Your task to perform on an android device: Play the latest video from the Wall Street Journal Image 0: 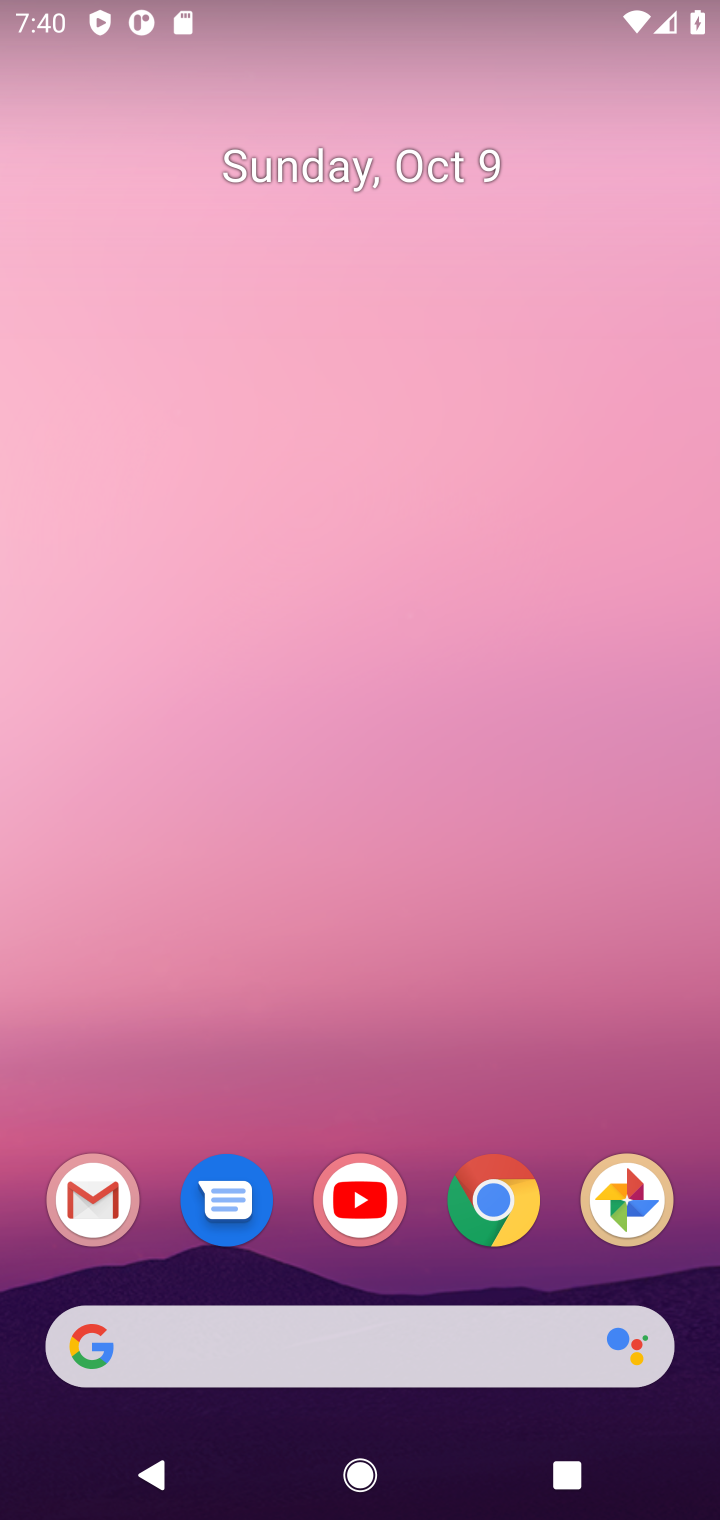
Step 0: click (516, 1219)
Your task to perform on an android device: Play the latest video from the Wall Street Journal Image 1: 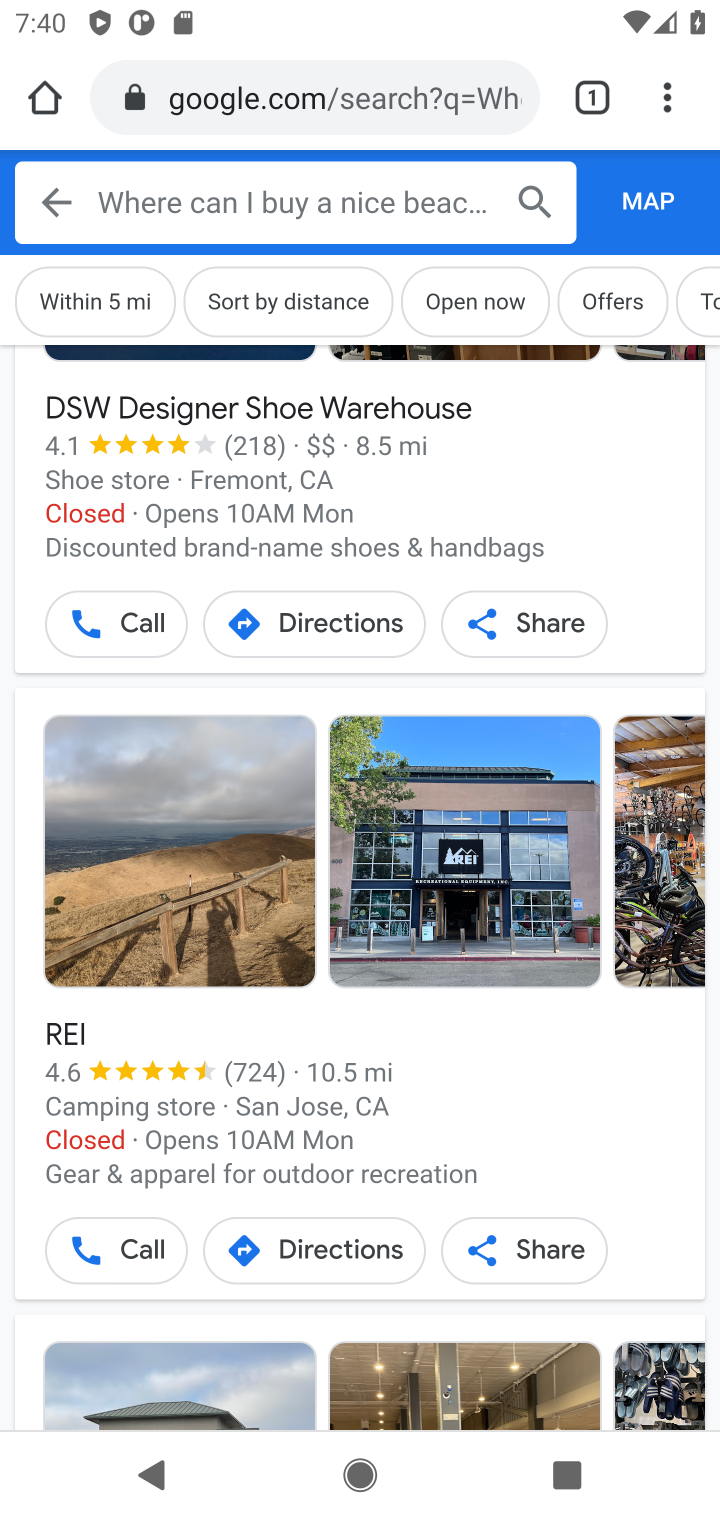
Step 1: click (242, 98)
Your task to perform on an android device: Play the latest video from the Wall Street Journal Image 2: 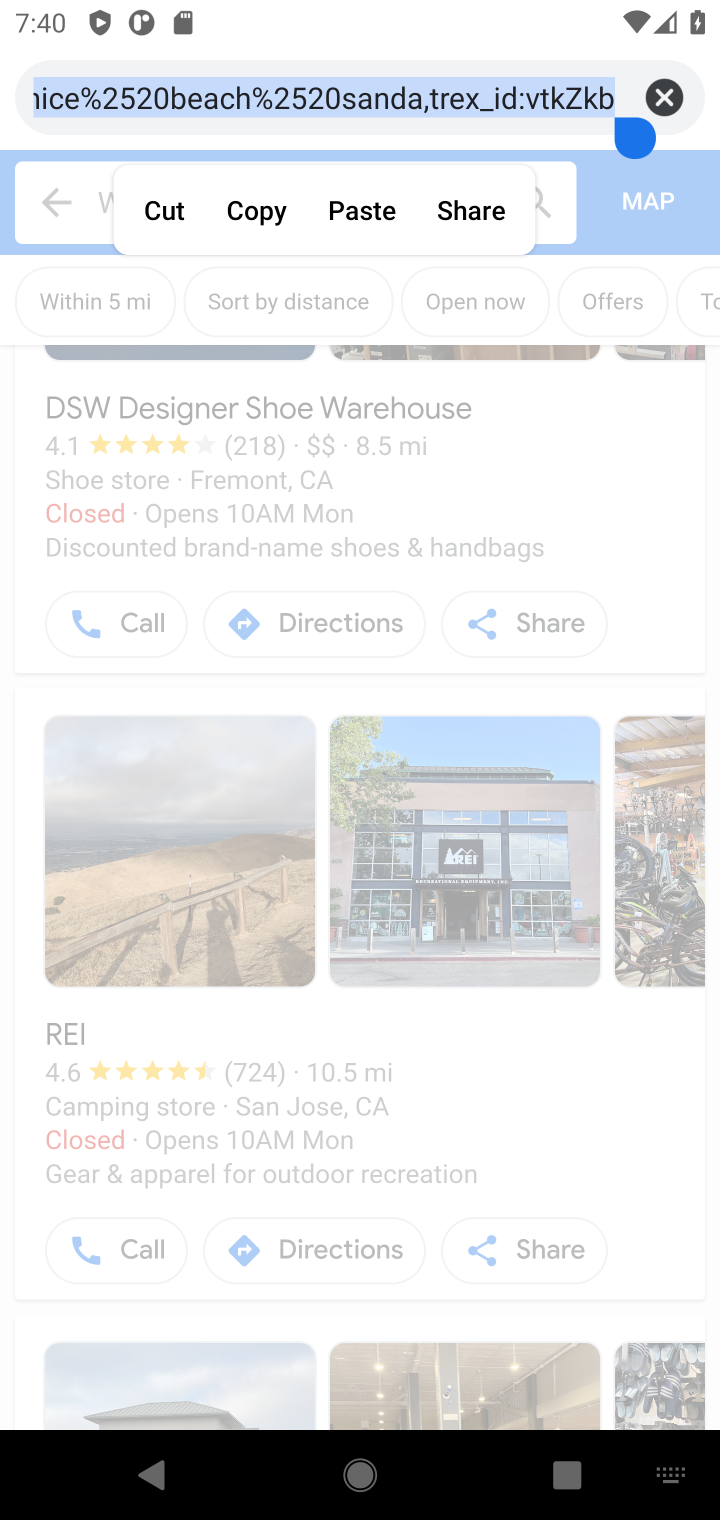
Step 2: type "atest video from the Wall Street Journal"
Your task to perform on an android device: Play the latest video from the Wall Street Journal Image 3: 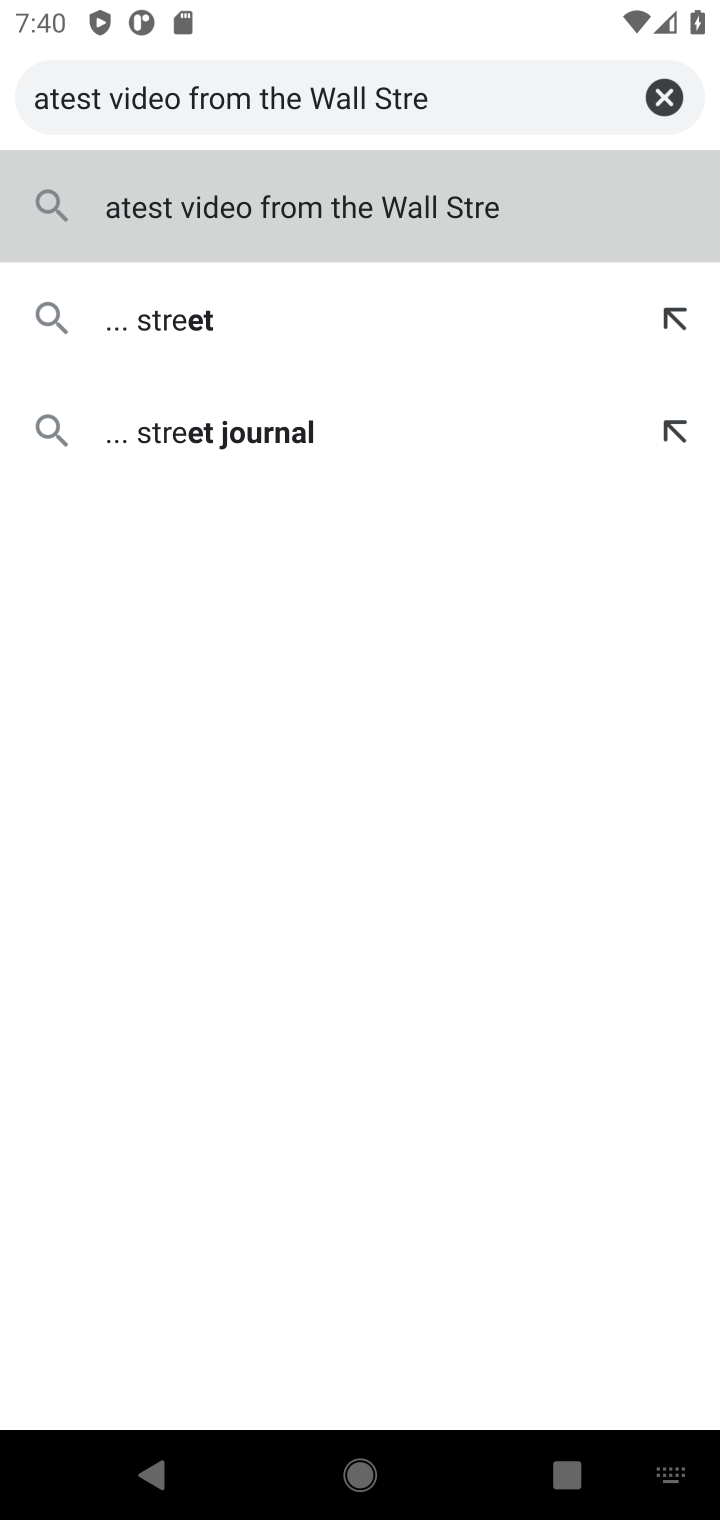
Step 3: type "atest video from the Wall Street Journal"
Your task to perform on an android device: Play the latest video from the Wall Street Journal Image 4: 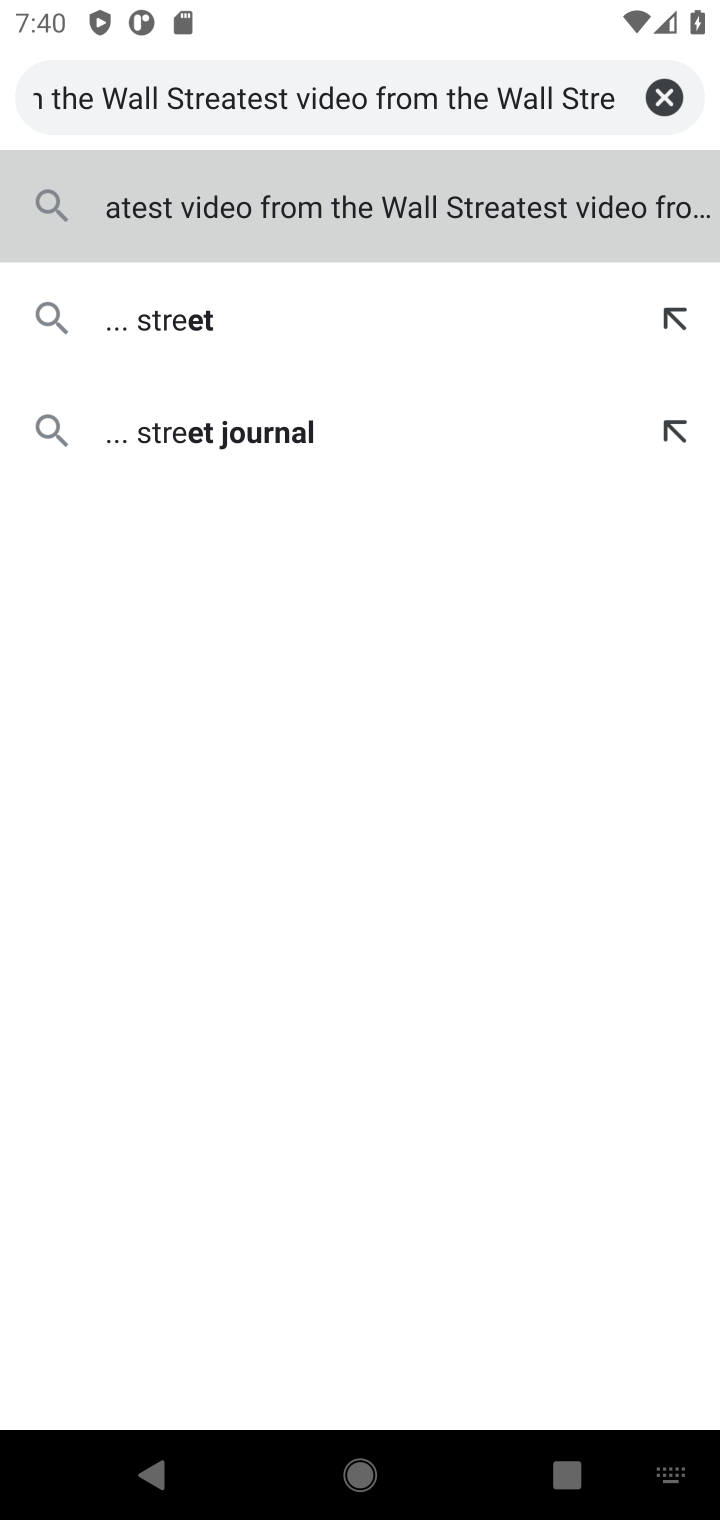
Step 4: type ""
Your task to perform on an android device: Play the latest video from the Wall Street Journal Image 5: 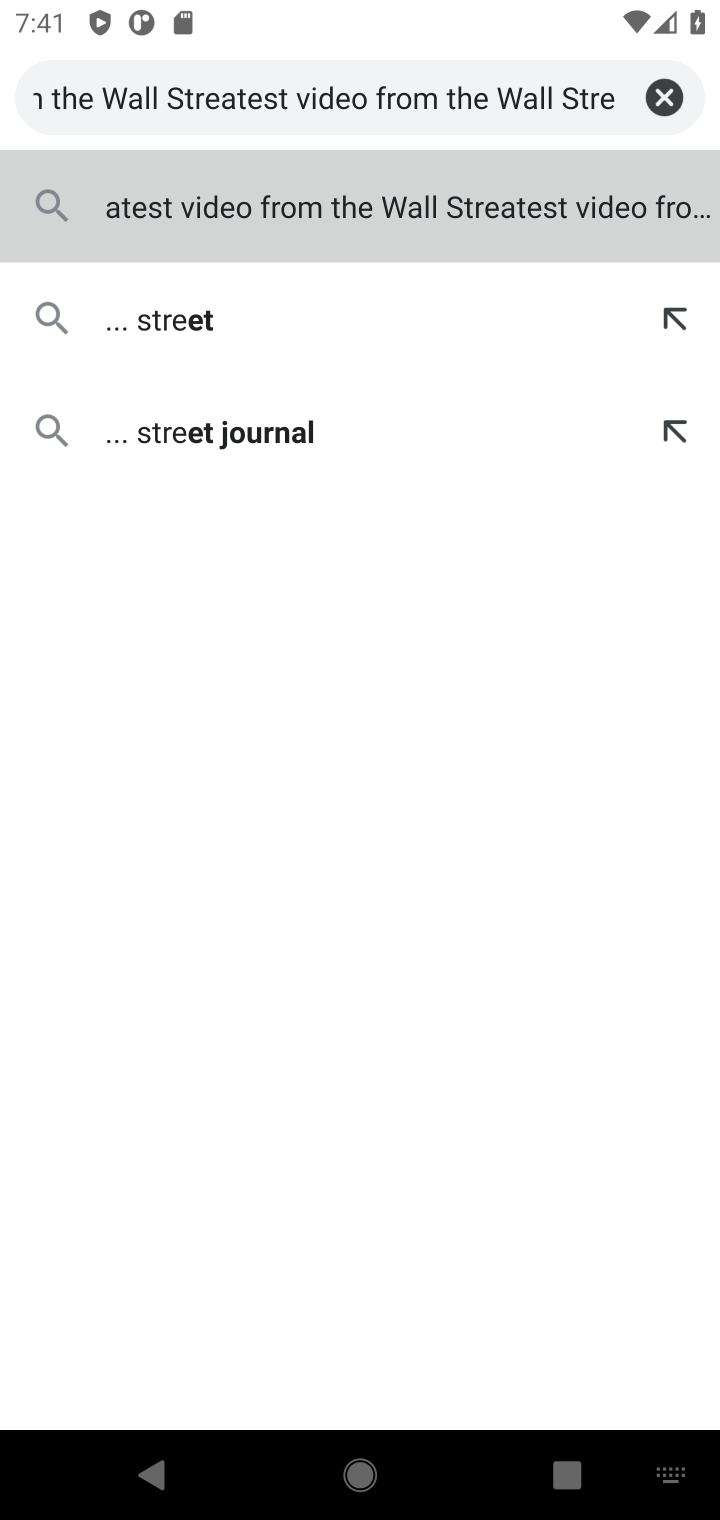
Step 5: click (662, 108)
Your task to perform on an android device: Play the latest video from the Wall Street Journal Image 6: 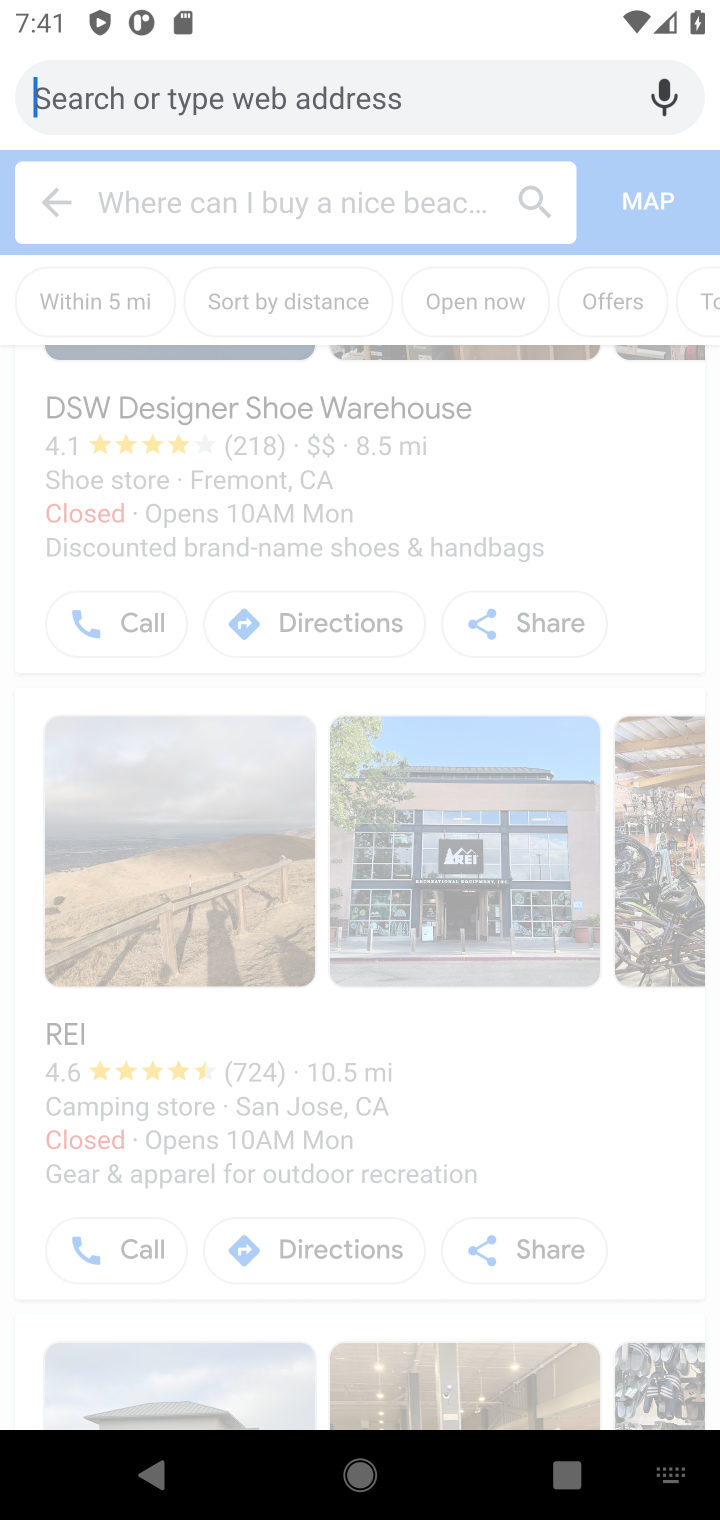
Step 6: type "latest video from the Wall Street Journal"
Your task to perform on an android device: Play the latest video from the Wall Street Journal Image 7: 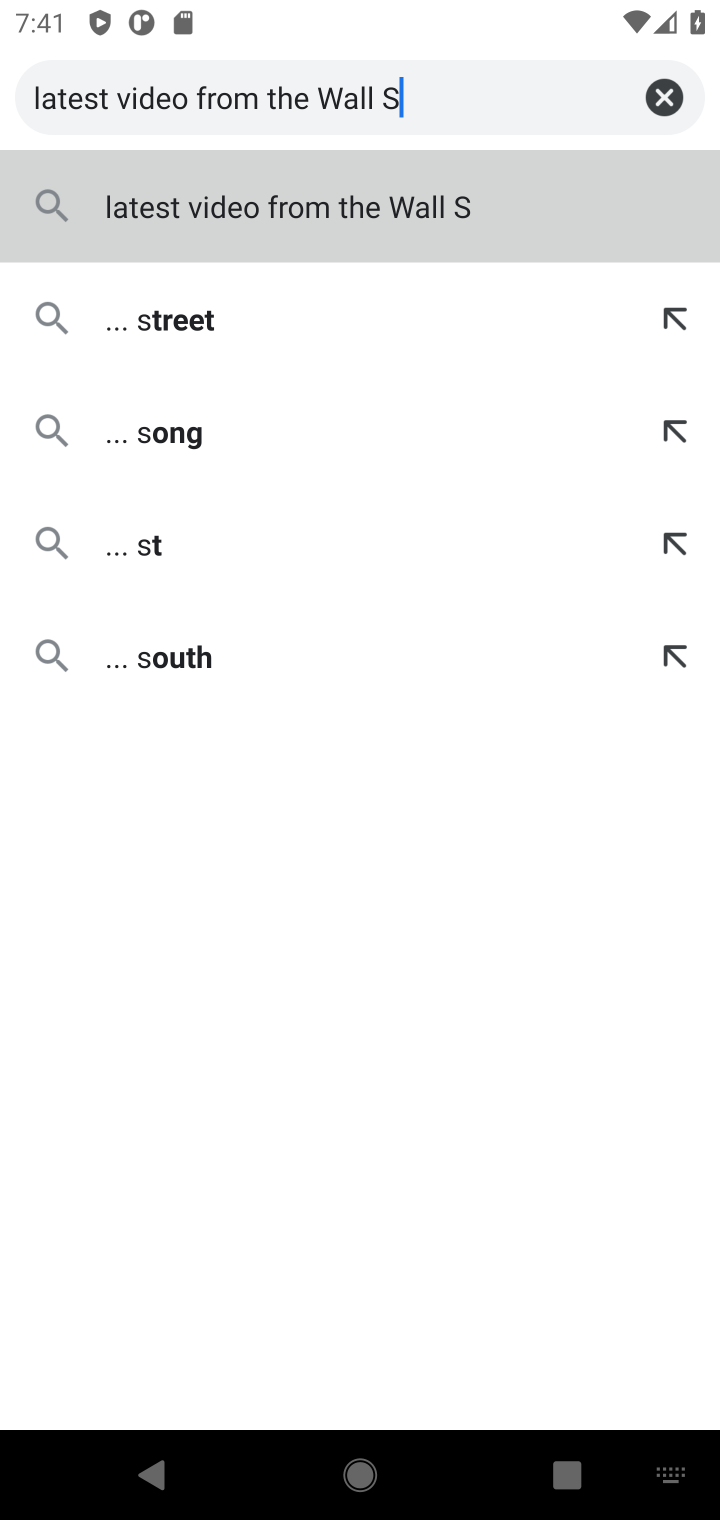
Step 7: click (456, 97)
Your task to perform on an android device: Play the latest video from the Wall Street Journal Image 8: 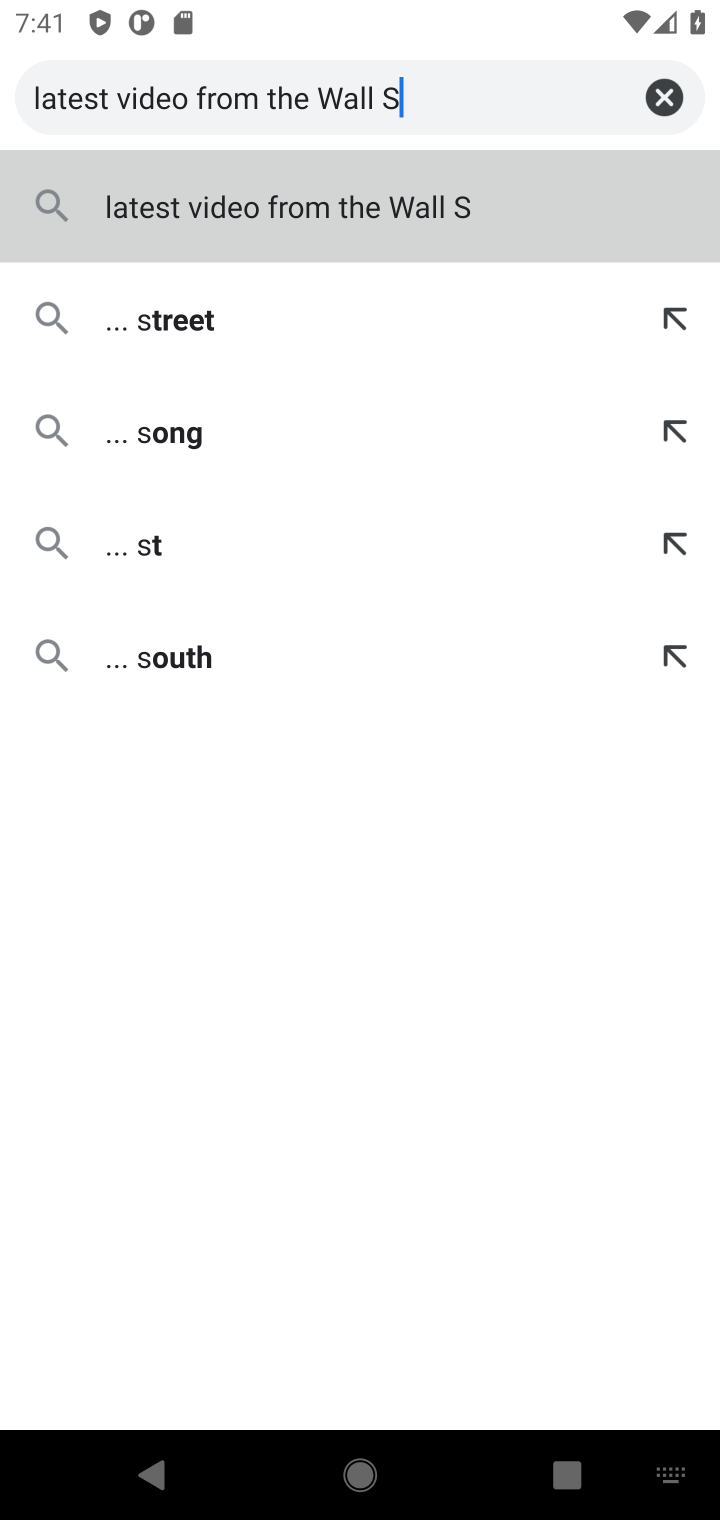
Step 8: type "treet journal"
Your task to perform on an android device: Play the latest video from the Wall Street Journal Image 9: 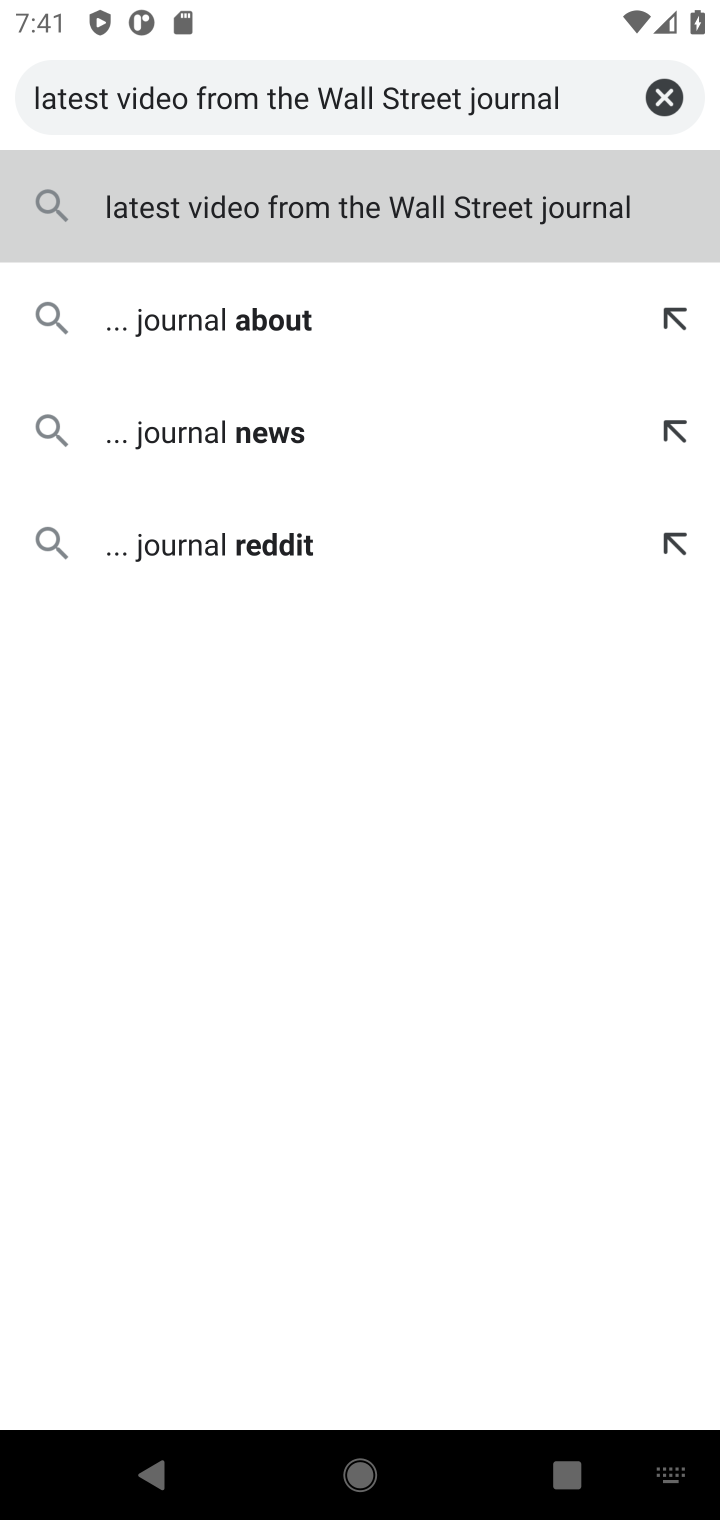
Step 9: type ""
Your task to perform on an android device: Play the latest video from the Wall Street Journal Image 10: 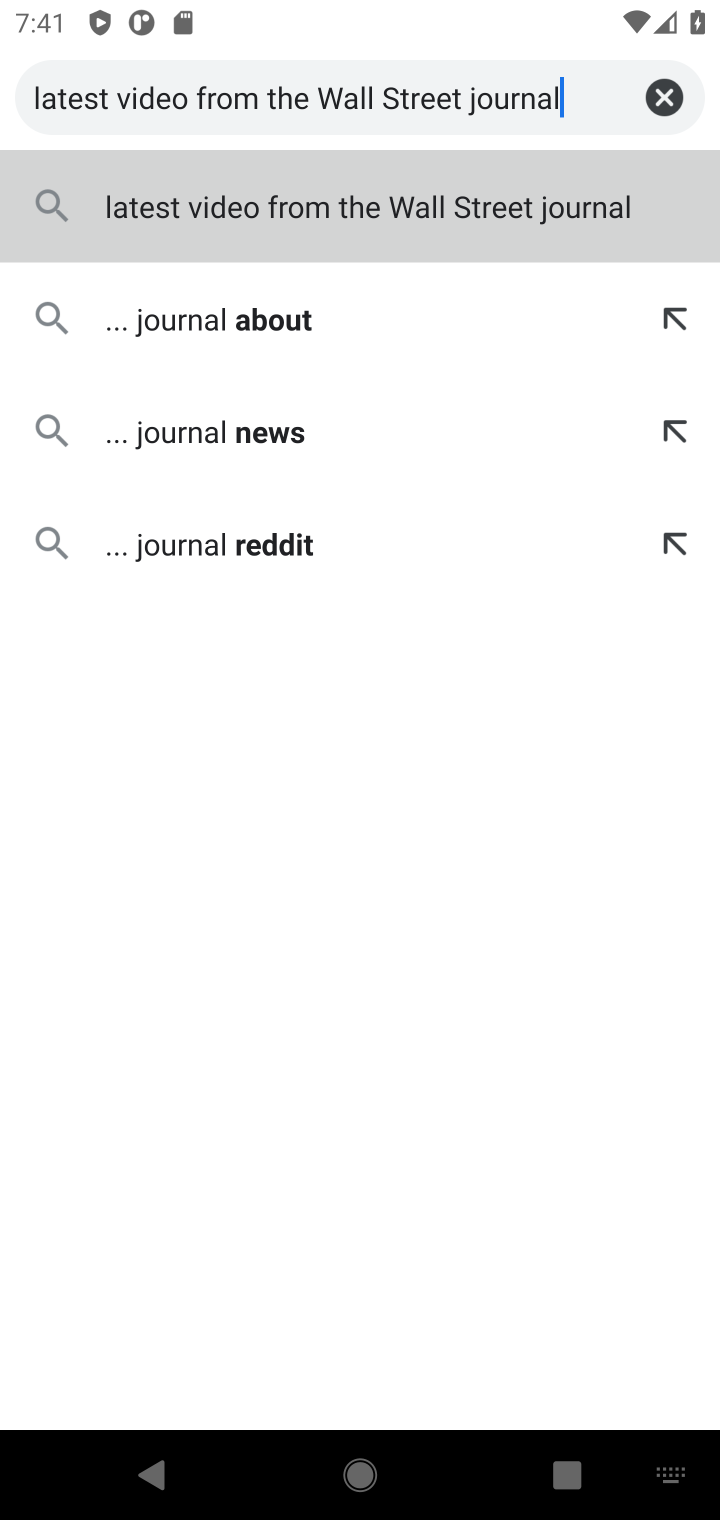
Step 10: press enter
Your task to perform on an android device: Play the latest video from the Wall Street Journal Image 11: 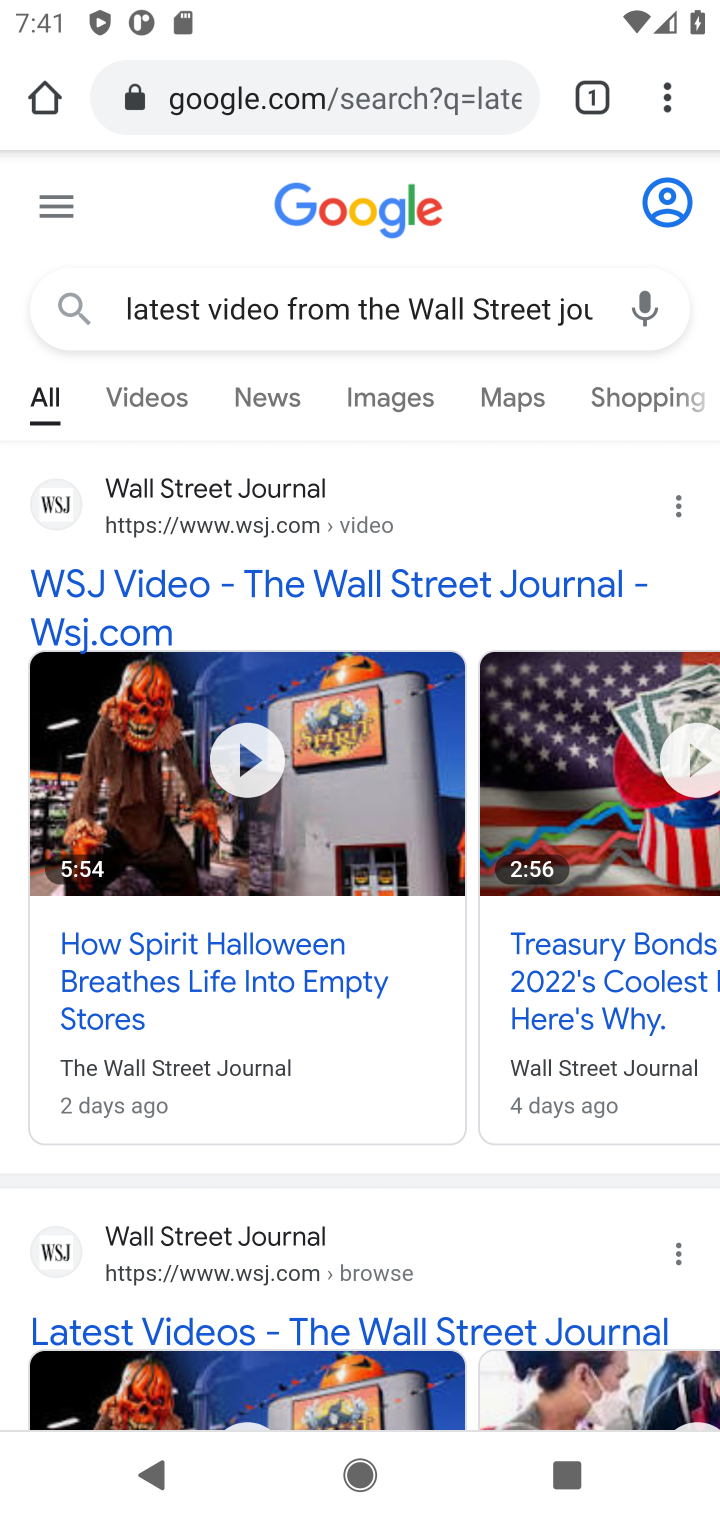
Step 11: click (236, 763)
Your task to perform on an android device: Play the latest video from the Wall Street Journal Image 12: 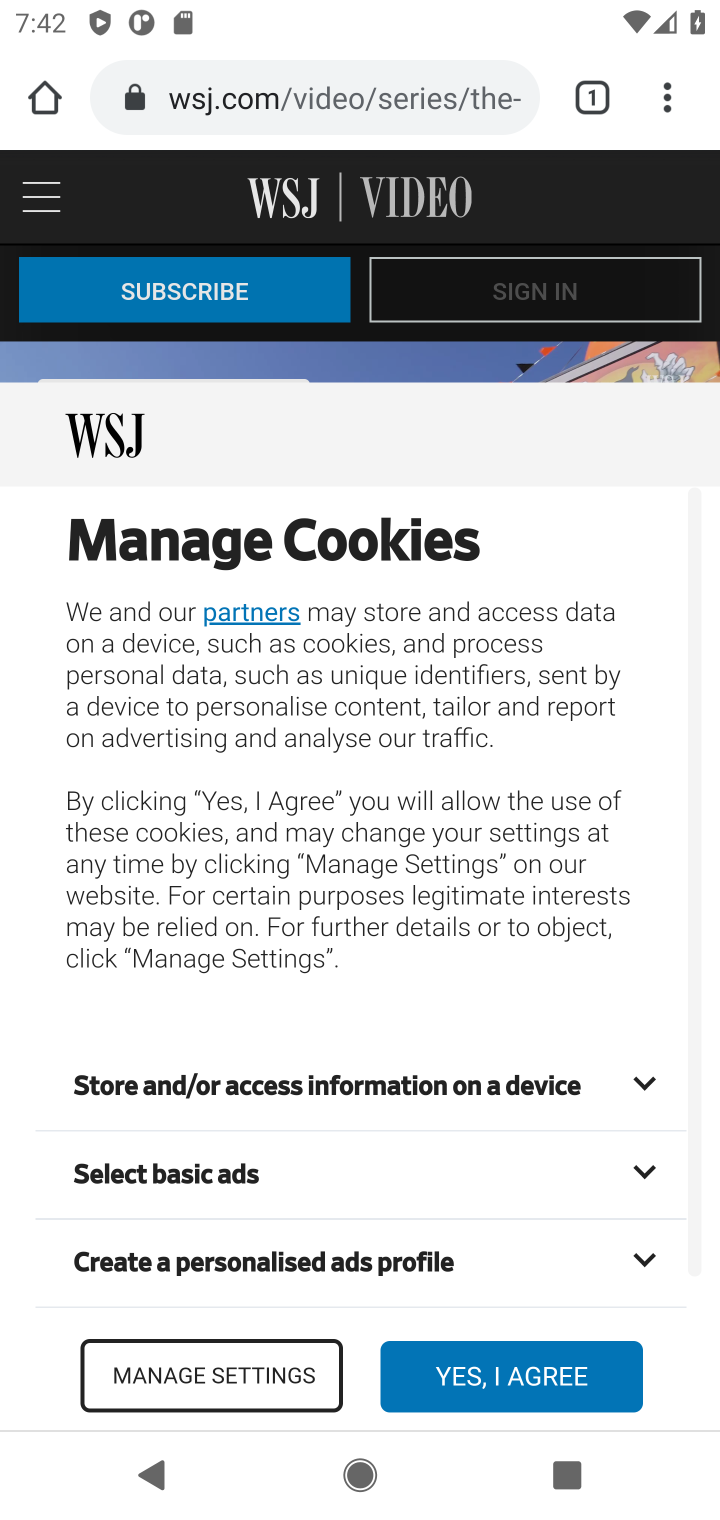
Step 12: click (492, 1372)
Your task to perform on an android device: Play the latest video from the Wall Street Journal Image 13: 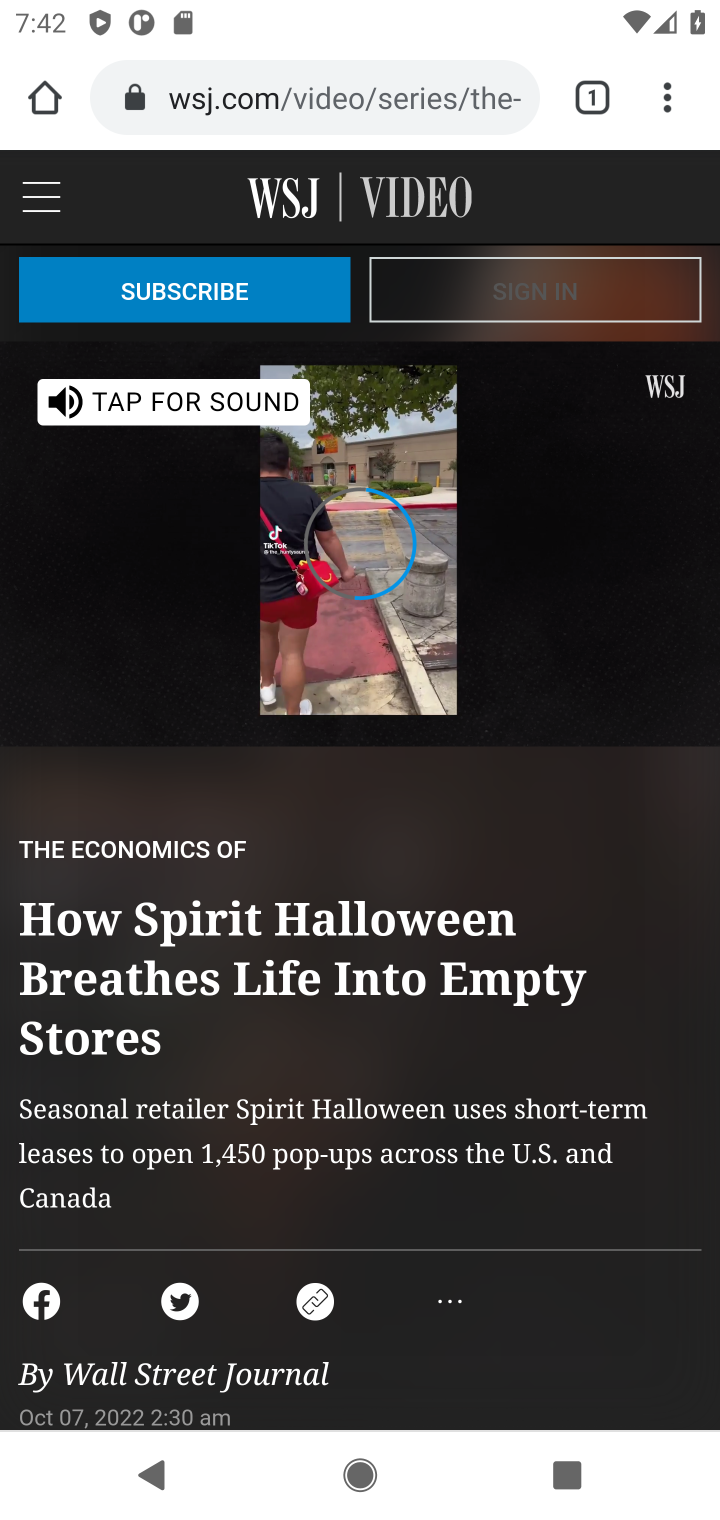
Step 13: task complete